Your task to perform on an android device: turn pop-ups on in chrome Image 0: 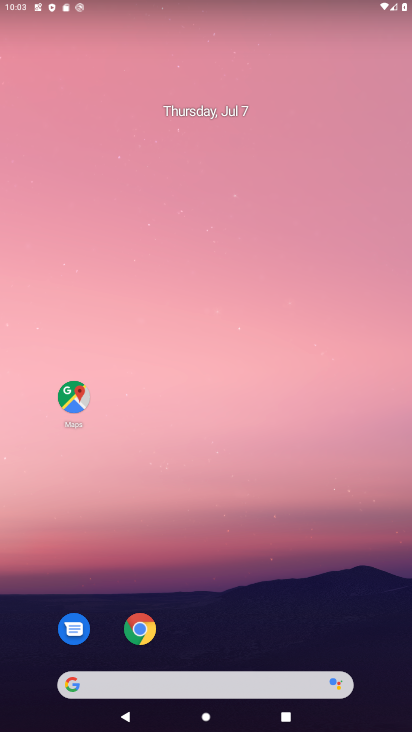
Step 0: drag from (165, 632) to (147, 9)
Your task to perform on an android device: turn pop-ups on in chrome Image 1: 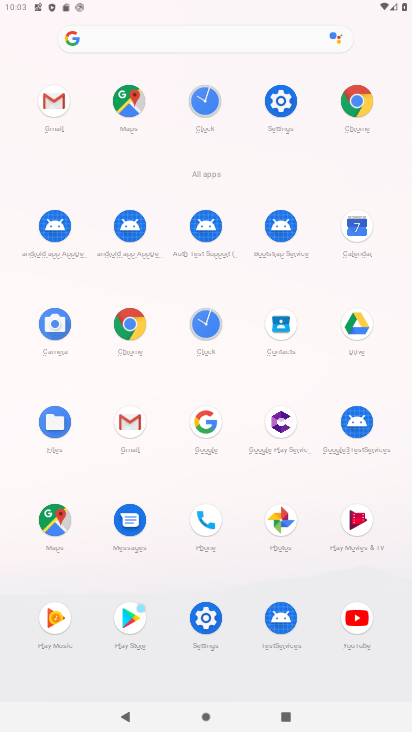
Step 1: click (136, 332)
Your task to perform on an android device: turn pop-ups on in chrome Image 2: 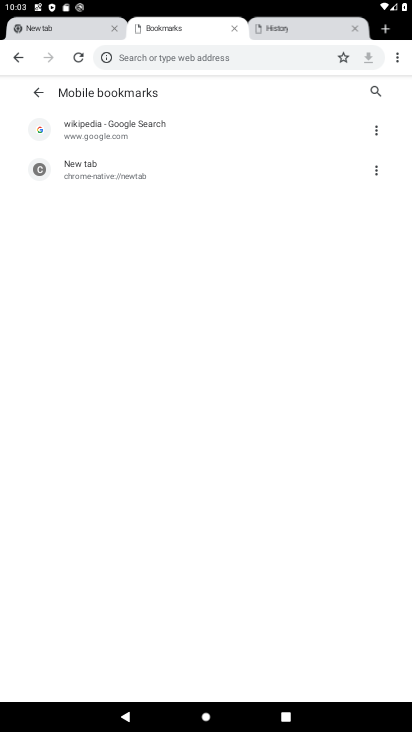
Step 2: click (395, 55)
Your task to perform on an android device: turn pop-ups on in chrome Image 3: 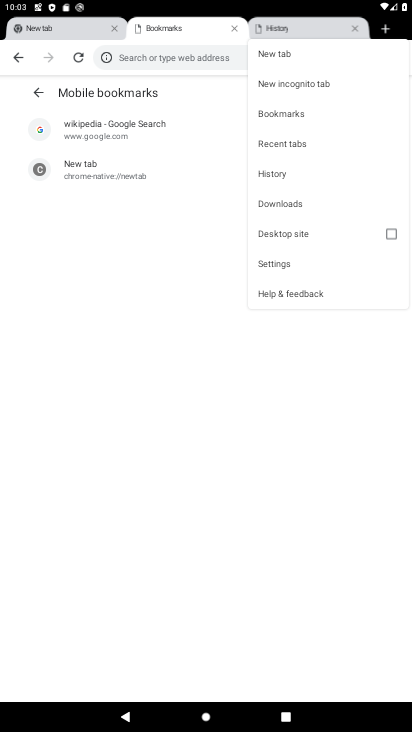
Step 3: click (282, 261)
Your task to perform on an android device: turn pop-ups on in chrome Image 4: 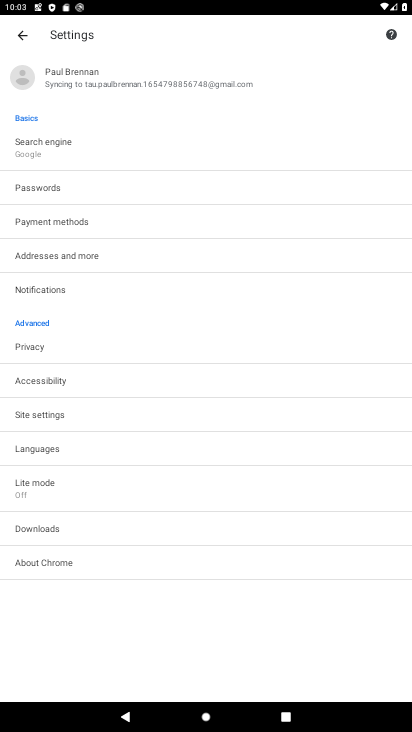
Step 4: click (55, 416)
Your task to perform on an android device: turn pop-ups on in chrome Image 5: 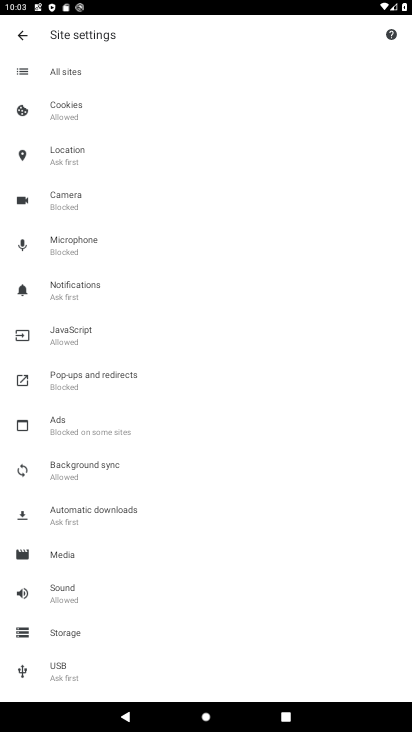
Step 5: click (113, 373)
Your task to perform on an android device: turn pop-ups on in chrome Image 6: 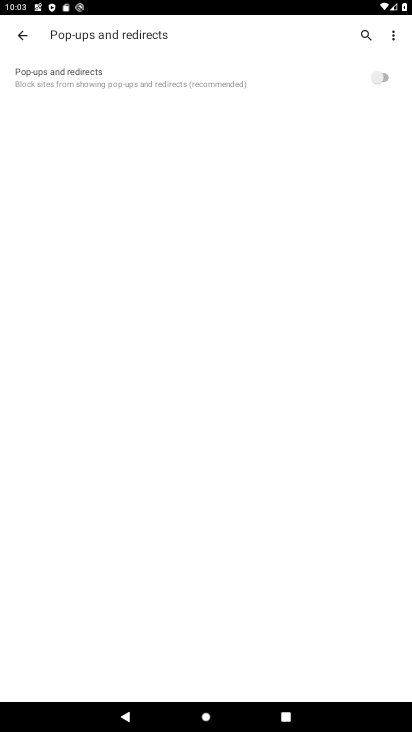
Step 6: click (384, 76)
Your task to perform on an android device: turn pop-ups on in chrome Image 7: 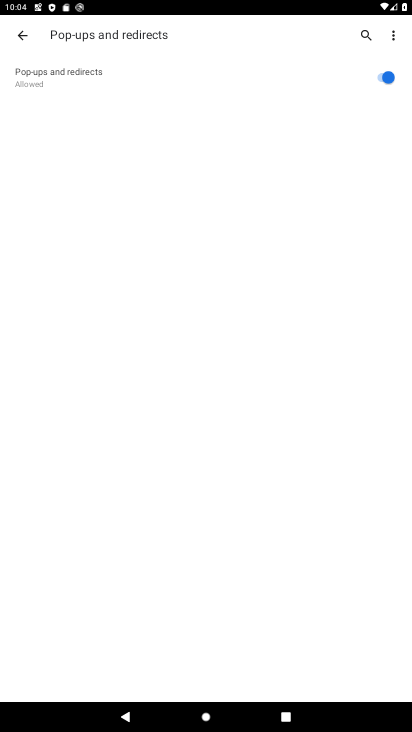
Step 7: task complete